Your task to perform on an android device: Go to battery settings Image 0: 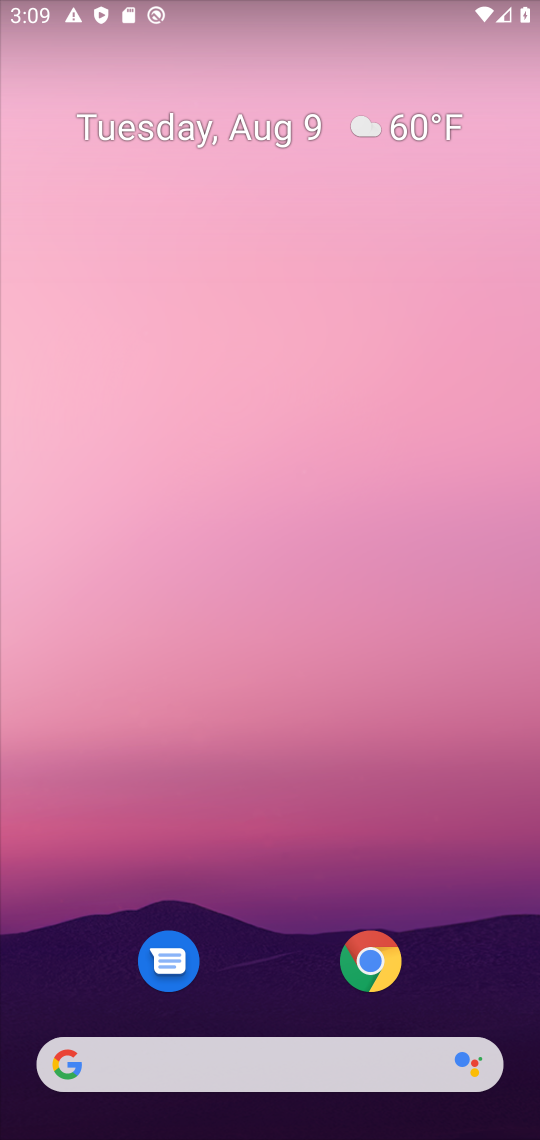
Step 0: drag from (219, 1022) to (225, 352)
Your task to perform on an android device: Go to battery settings Image 1: 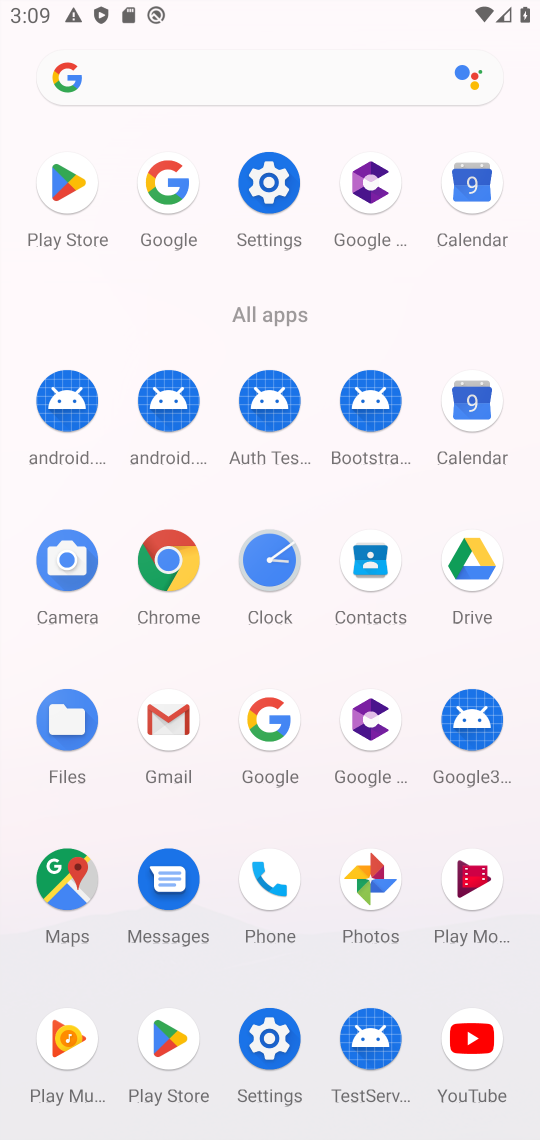
Step 1: click (273, 1035)
Your task to perform on an android device: Go to battery settings Image 2: 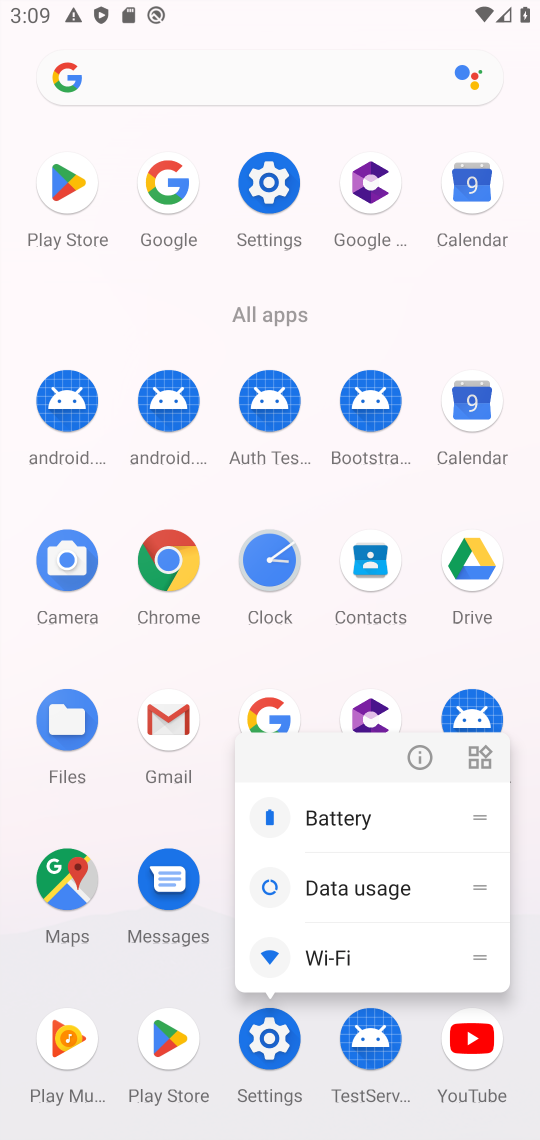
Step 2: click (274, 1052)
Your task to perform on an android device: Go to battery settings Image 3: 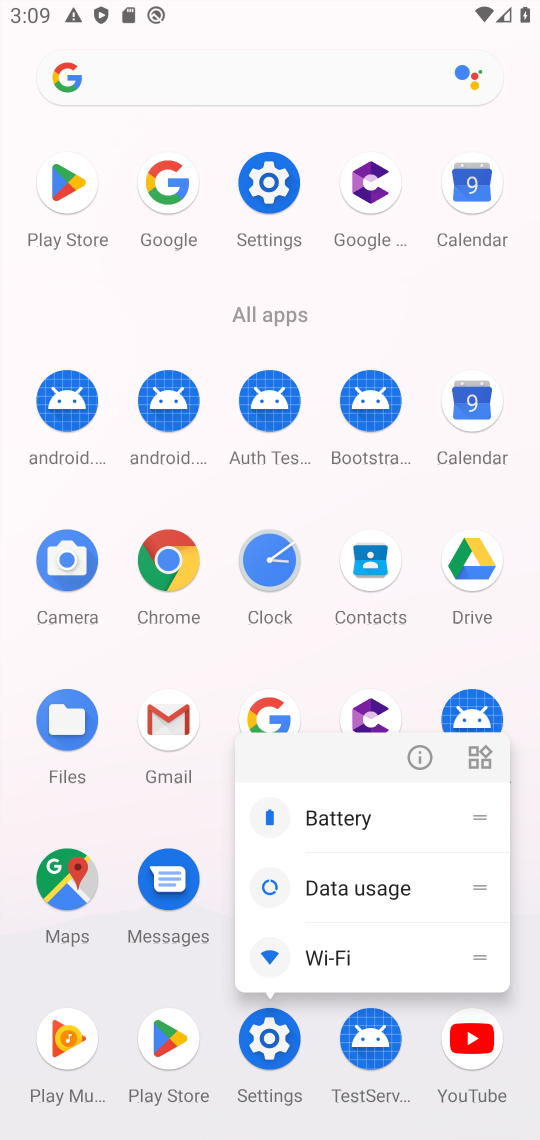
Step 3: click (266, 1035)
Your task to perform on an android device: Go to battery settings Image 4: 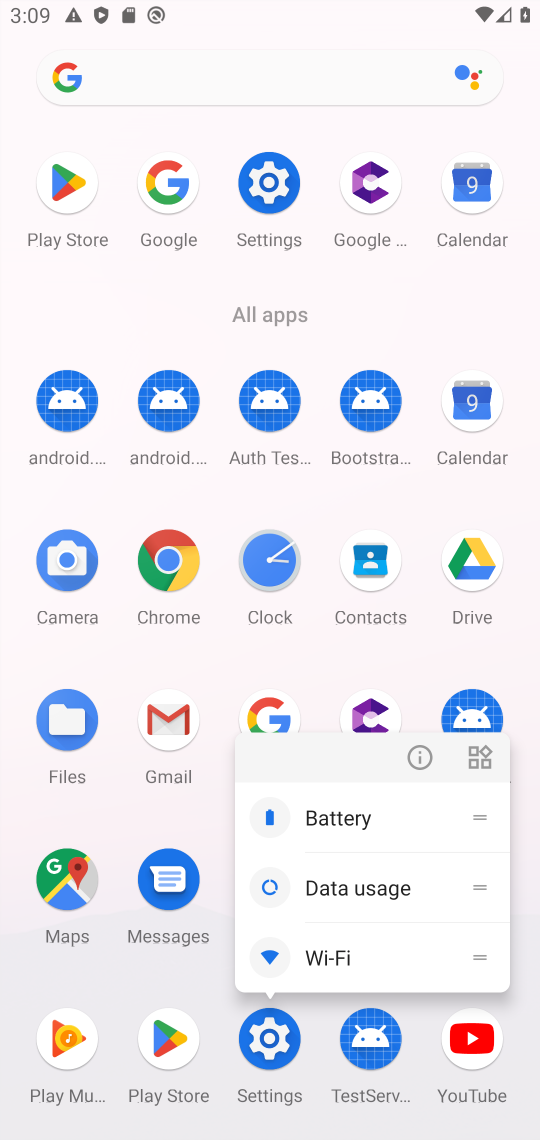
Step 4: click (264, 1039)
Your task to perform on an android device: Go to battery settings Image 5: 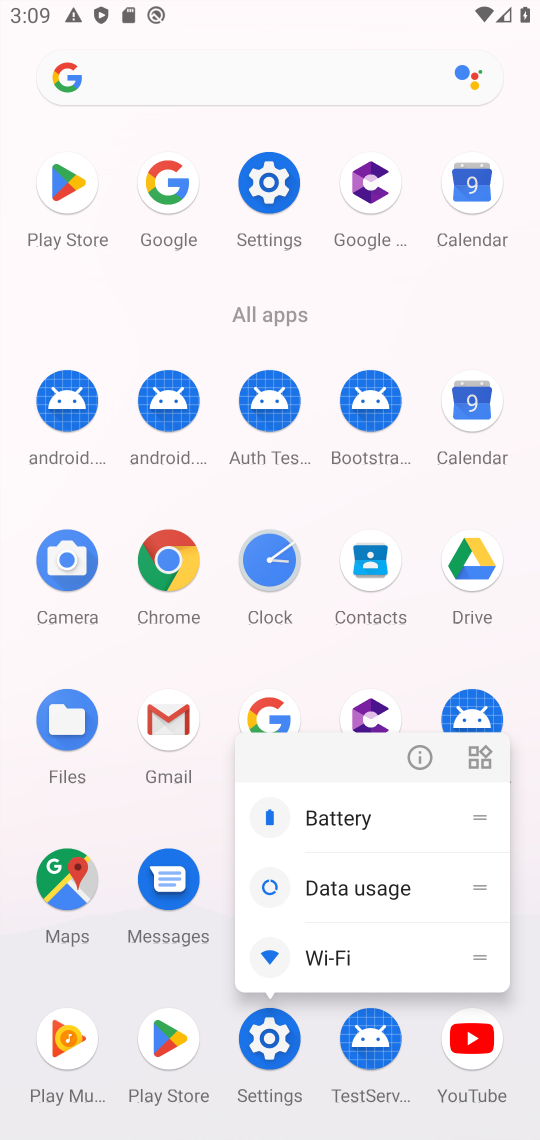
Step 5: click (267, 1034)
Your task to perform on an android device: Go to battery settings Image 6: 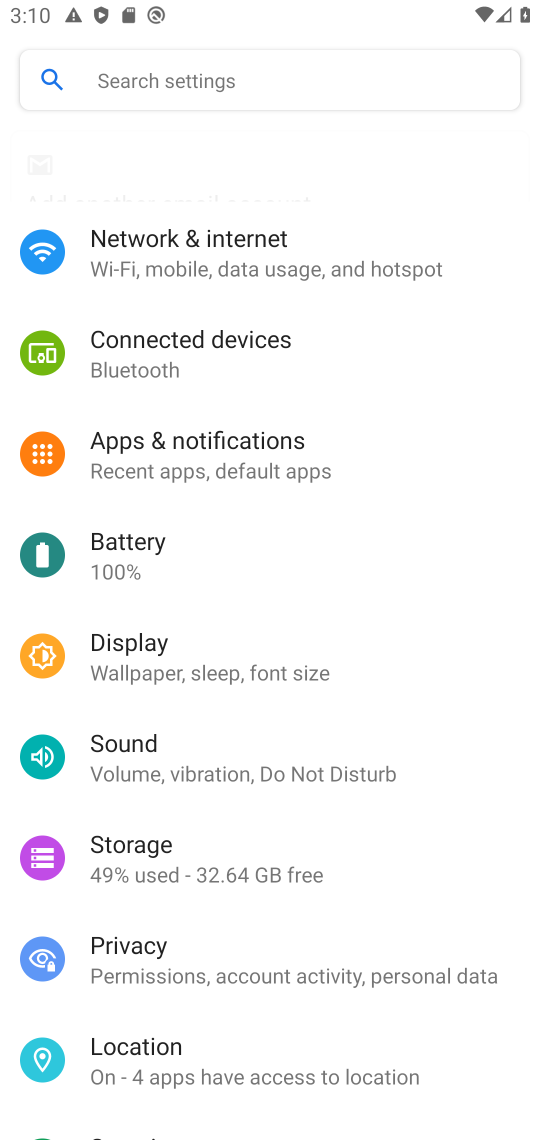
Step 6: click (274, 1041)
Your task to perform on an android device: Go to battery settings Image 7: 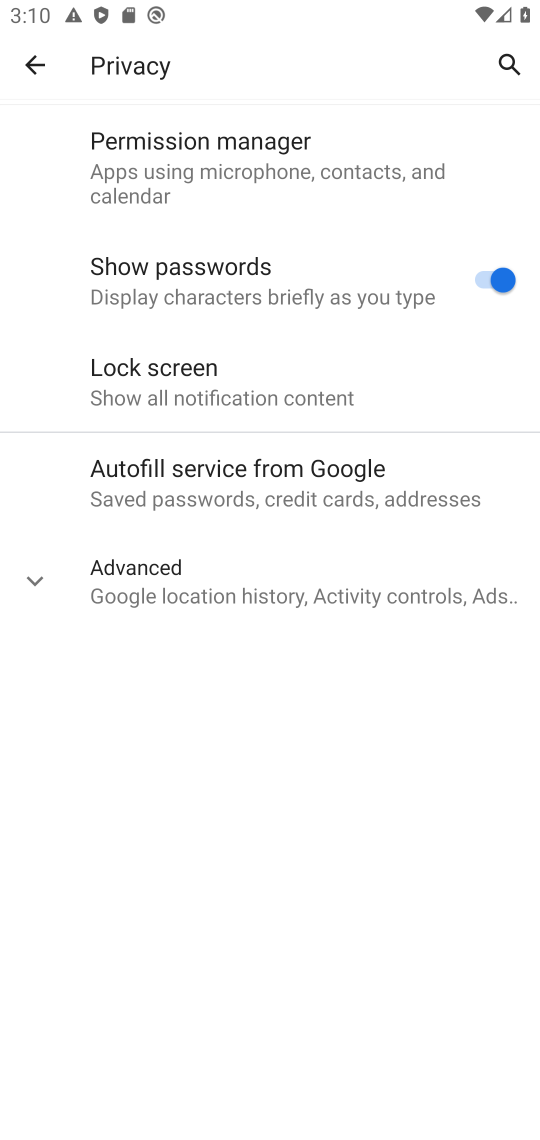
Step 7: click (40, 67)
Your task to perform on an android device: Go to battery settings Image 8: 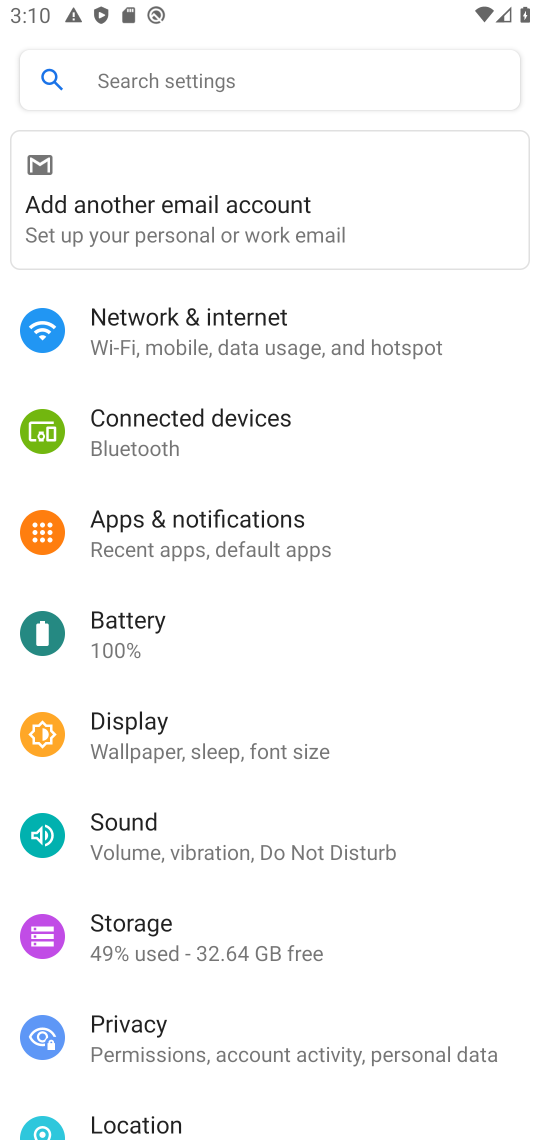
Step 8: click (146, 635)
Your task to perform on an android device: Go to battery settings Image 9: 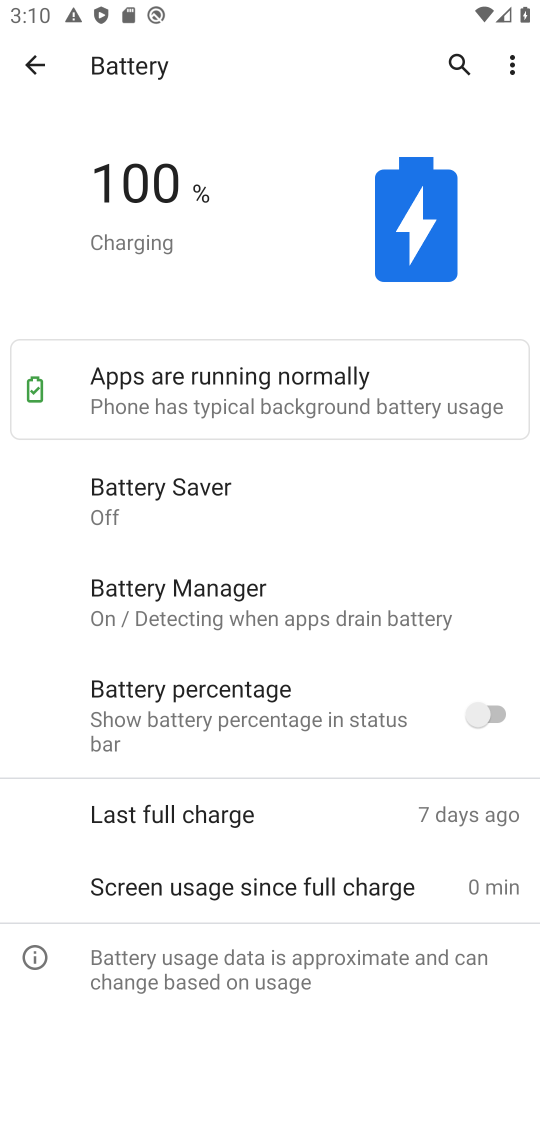
Step 9: task complete